Your task to perform on an android device: turn on wifi Image 0: 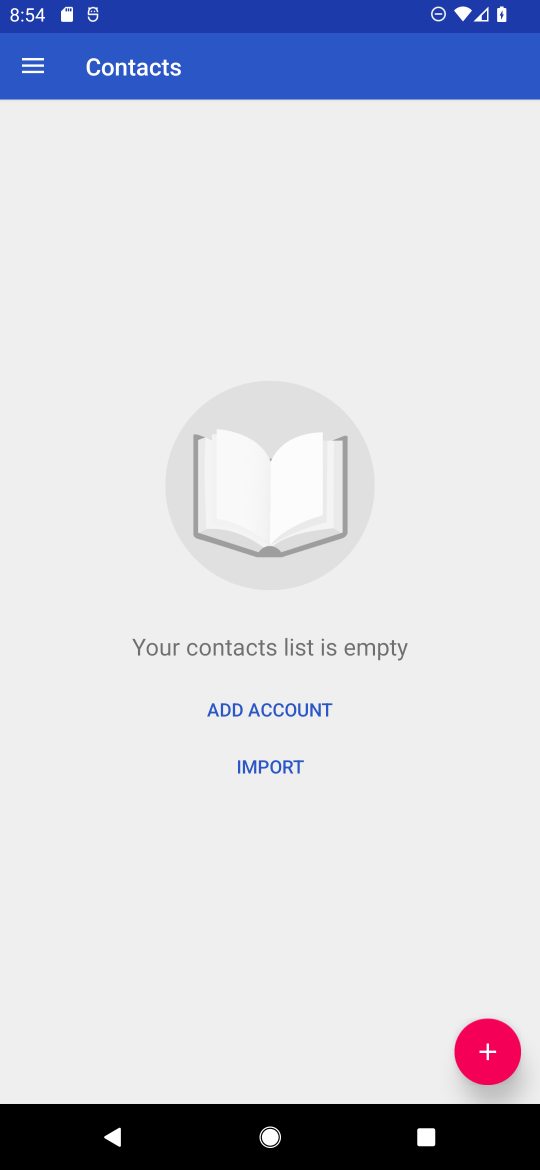
Step 0: press back button
Your task to perform on an android device: turn on wifi Image 1: 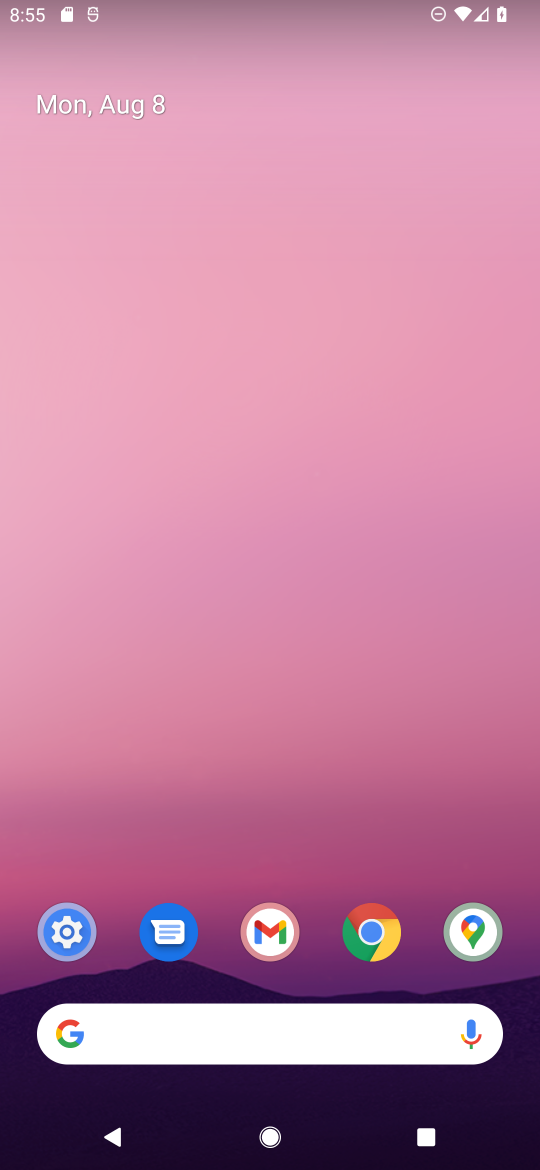
Step 1: task complete